Your task to perform on an android device: check android version Image 0: 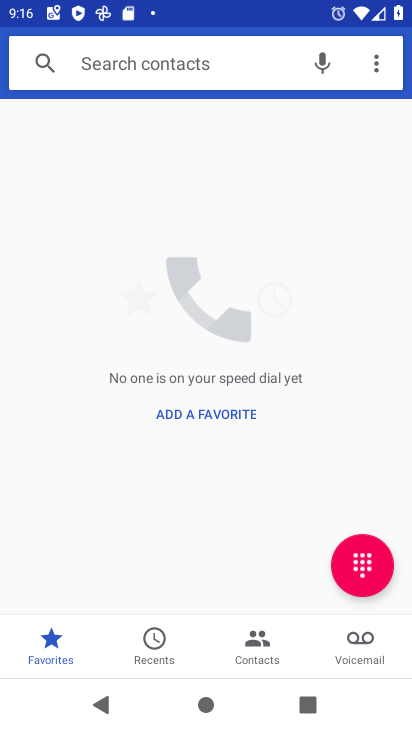
Step 0: press home button
Your task to perform on an android device: check android version Image 1: 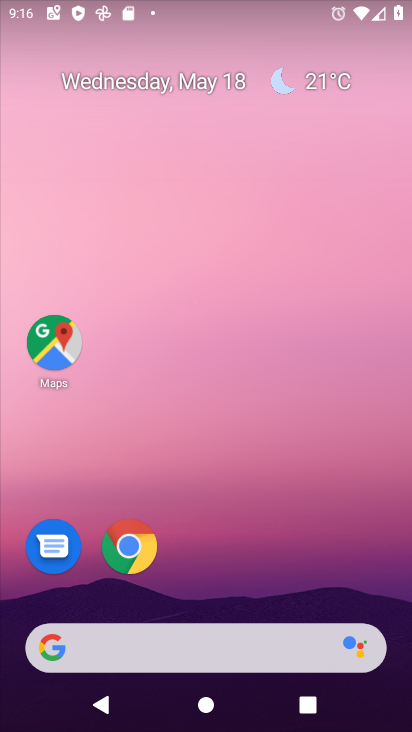
Step 1: drag from (405, 636) to (339, 27)
Your task to perform on an android device: check android version Image 2: 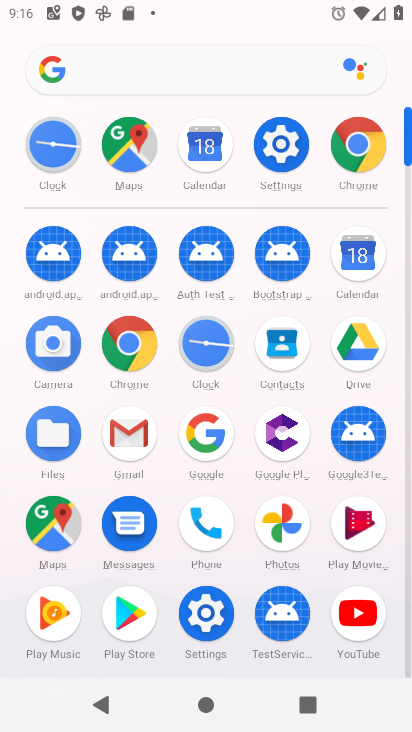
Step 2: click (216, 627)
Your task to perform on an android device: check android version Image 3: 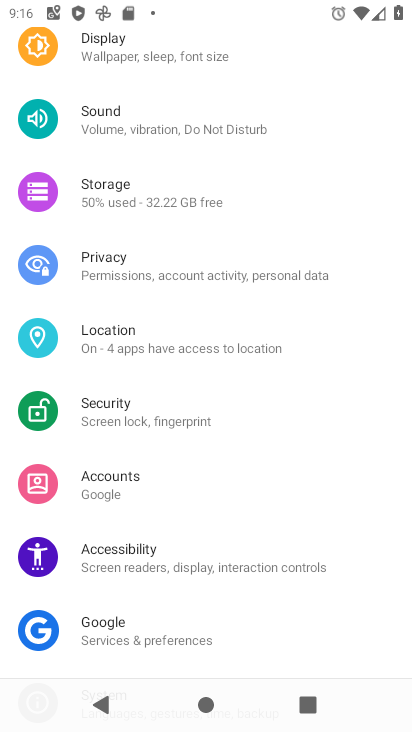
Step 3: drag from (216, 627) to (266, 16)
Your task to perform on an android device: check android version Image 4: 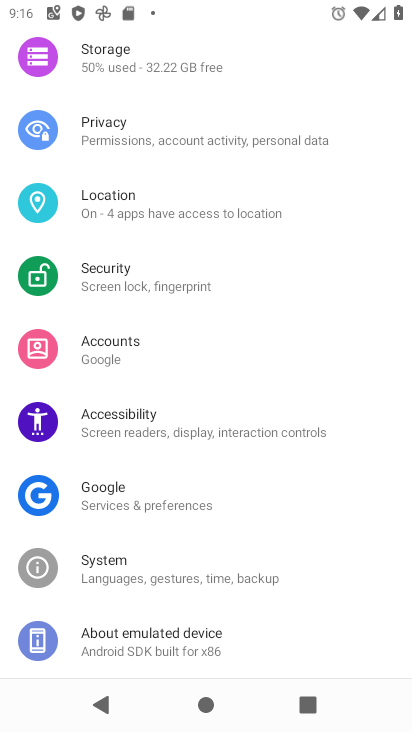
Step 4: click (217, 631)
Your task to perform on an android device: check android version Image 5: 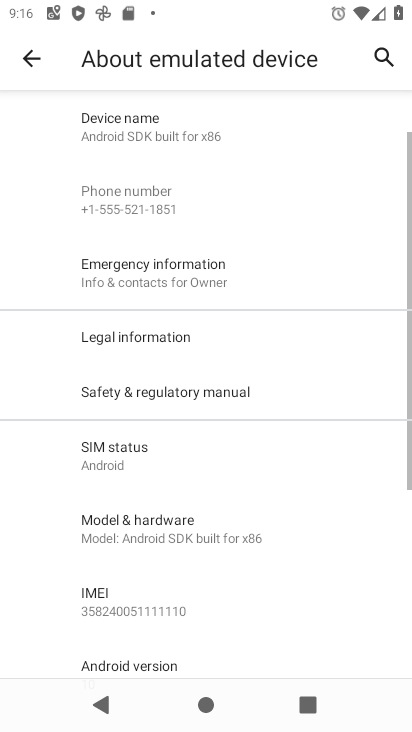
Step 5: click (153, 663)
Your task to perform on an android device: check android version Image 6: 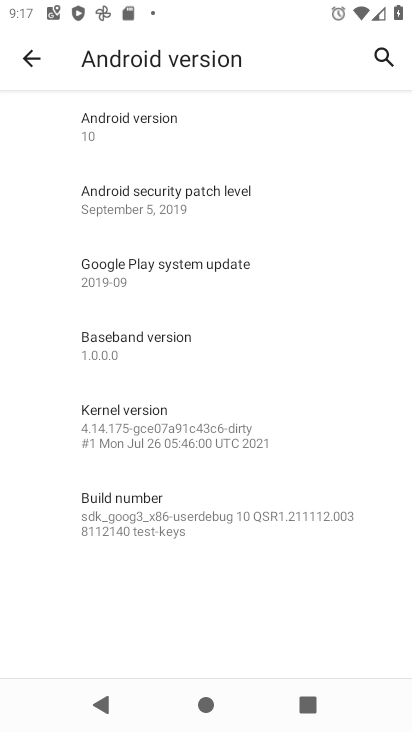
Step 6: click (172, 127)
Your task to perform on an android device: check android version Image 7: 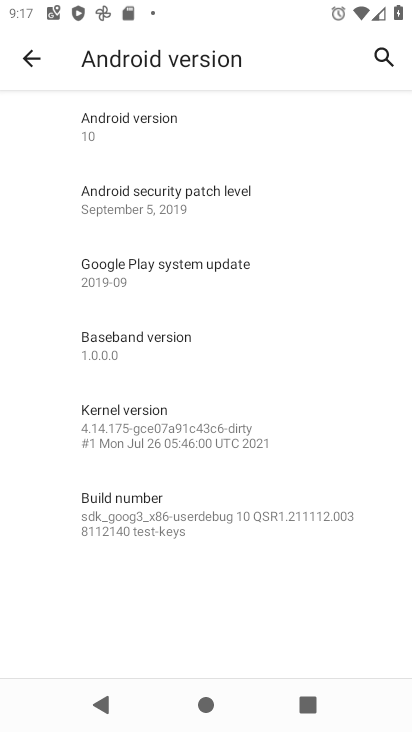
Step 7: task complete